Your task to perform on an android device: Go to Android settings Image 0: 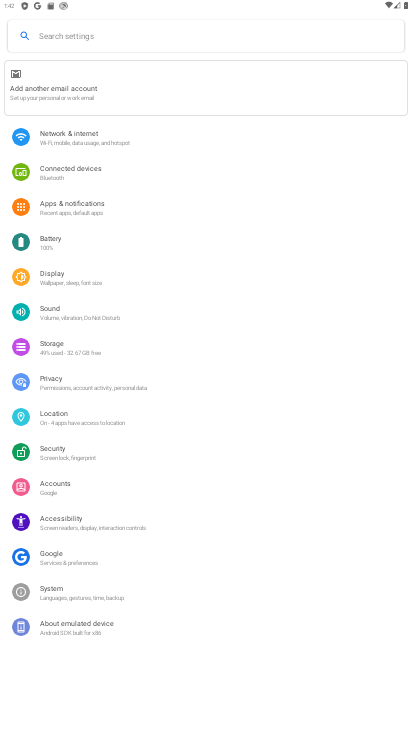
Step 0: press home button
Your task to perform on an android device: Go to Android settings Image 1: 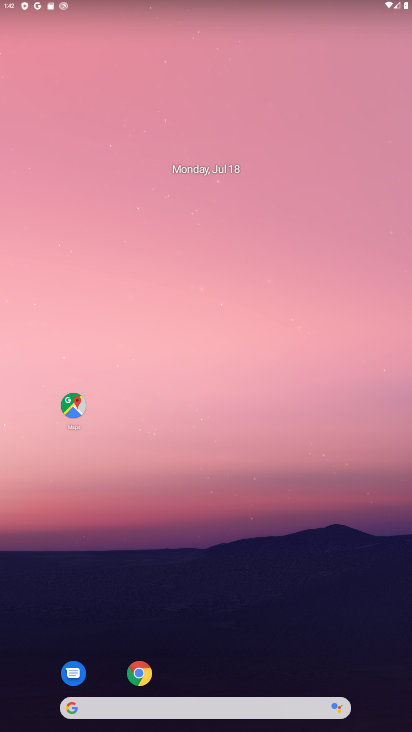
Step 1: drag from (212, 705) to (303, 112)
Your task to perform on an android device: Go to Android settings Image 2: 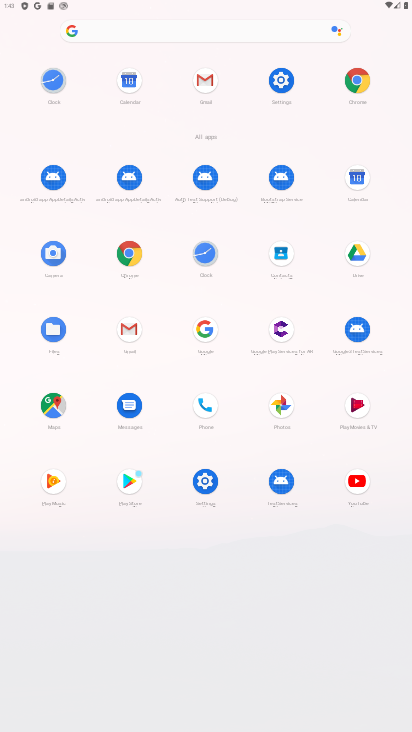
Step 2: click (206, 480)
Your task to perform on an android device: Go to Android settings Image 3: 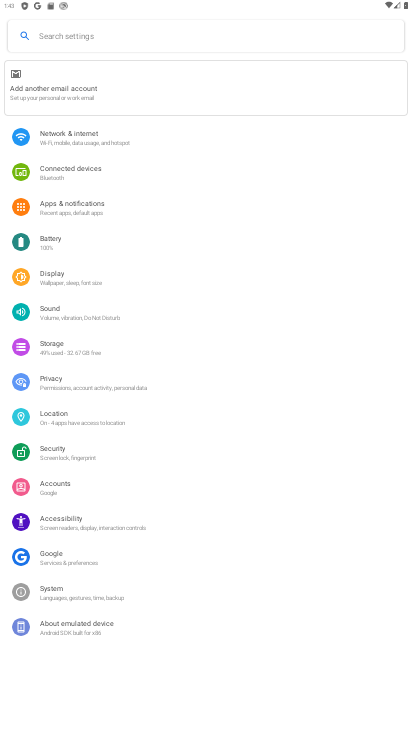
Step 3: task complete